Your task to perform on an android device: find snoozed emails in the gmail app Image 0: 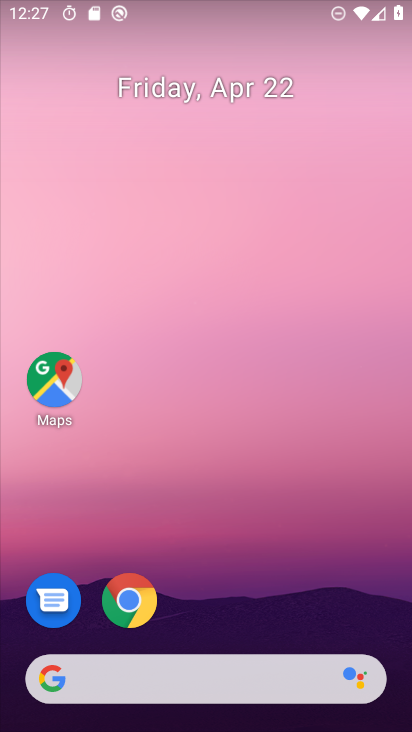
Step 0: drag from (263, 559) to (305, 90)
Your task to perform on an android device: find snoozed emails in the gmail app Image 1: 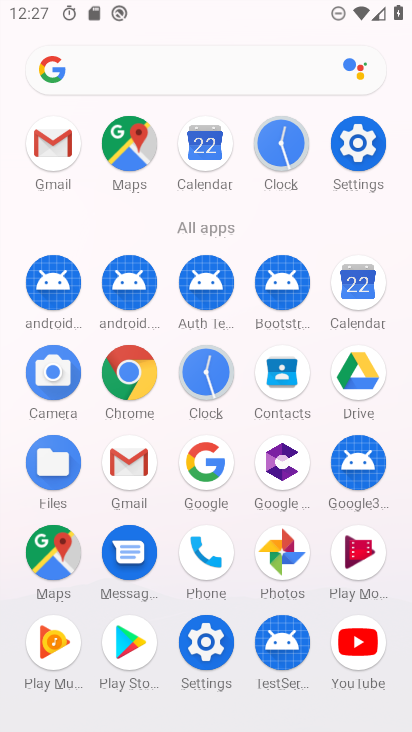
Step 1: click (54, 144)
Your task to perform on an android device: find snoozed emails in the gmail app Image 2: 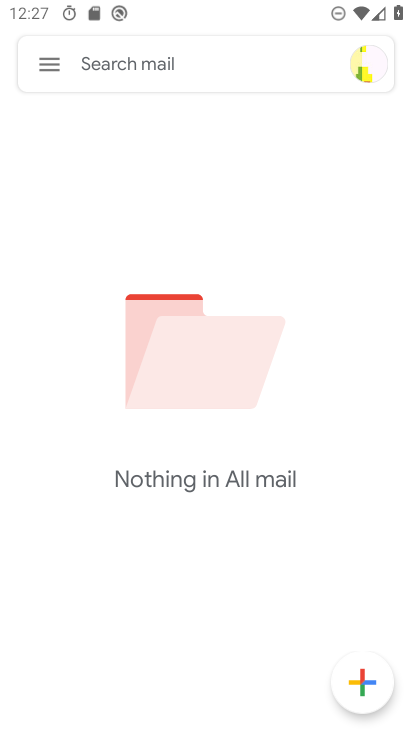
Step 2: click (52, 69)
Your task to perform on an android device: find snoozed emails in the gmail app Image 3: 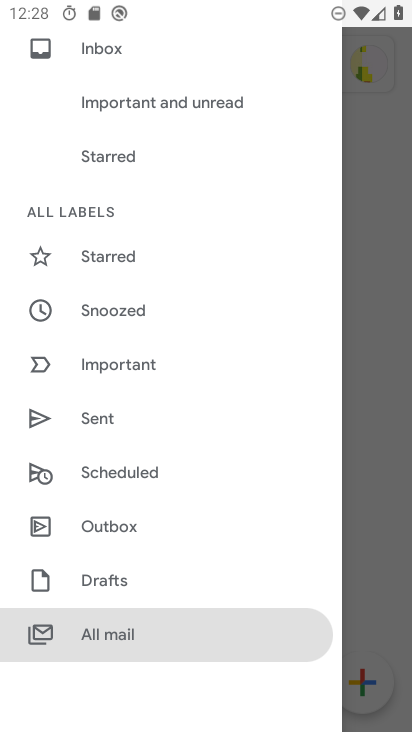
Step 3: click (150, 307)
Your task to perform on an android device: find snoozed emails in the gmail app Image 4: 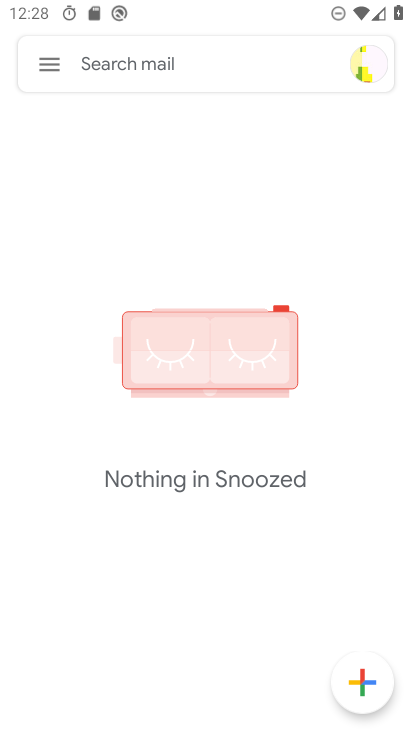
Step 4: task complete